Your task to perform on an android device: open app "eBay: The shopping marketplace" (install if not already installed) Image 0: 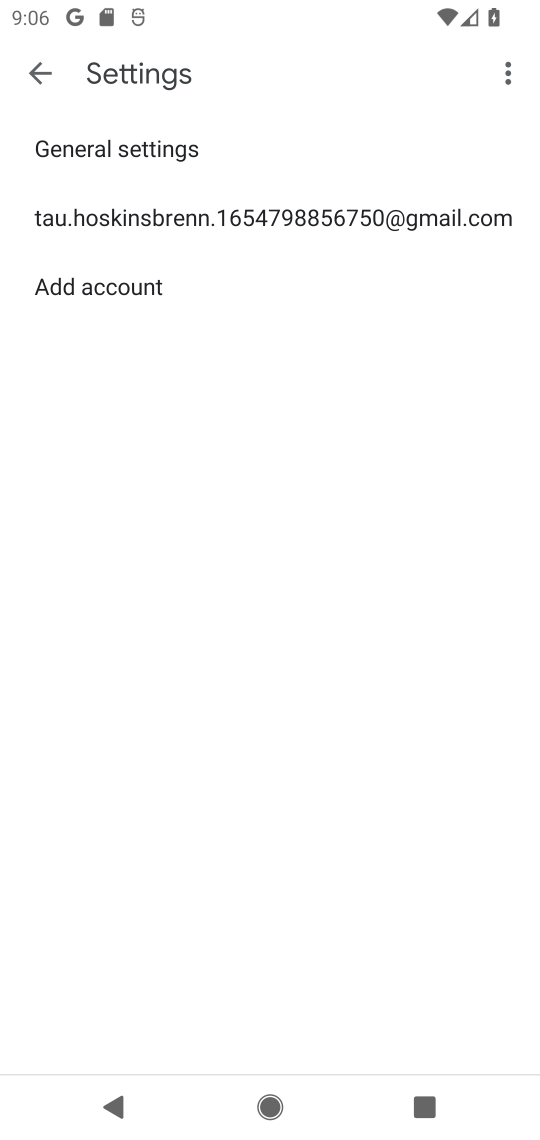
Step 0: press home button
Your task to perform on an android device: open app "eBay: The shopping marketplace" (install if not already installed) Image 1: 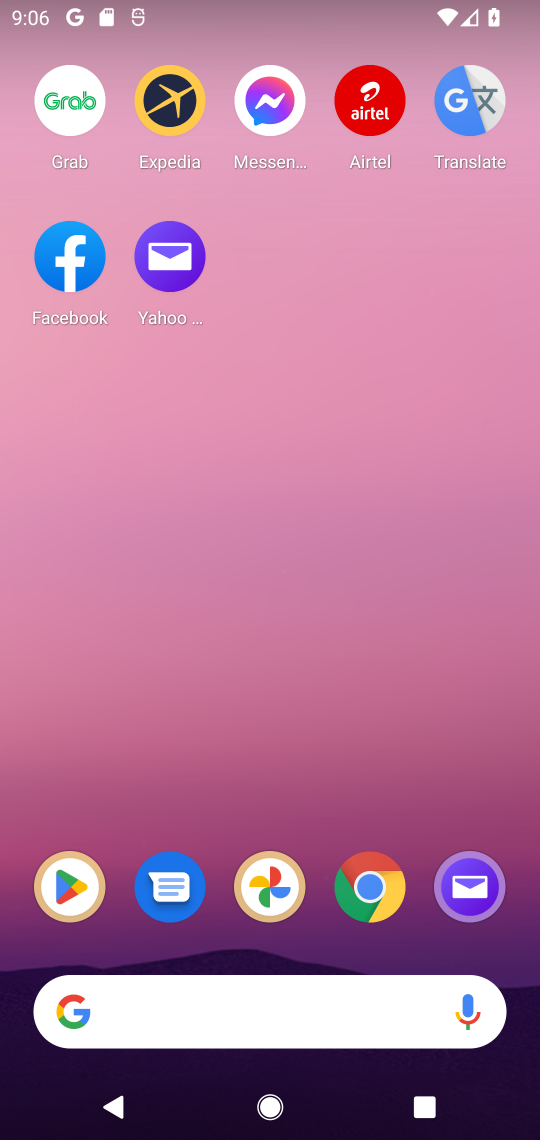
Step 1: click (71, 877)
Your task to perform on an android device: open app "eBay: The shopping marketplace" (install if not already installed) Image 2: 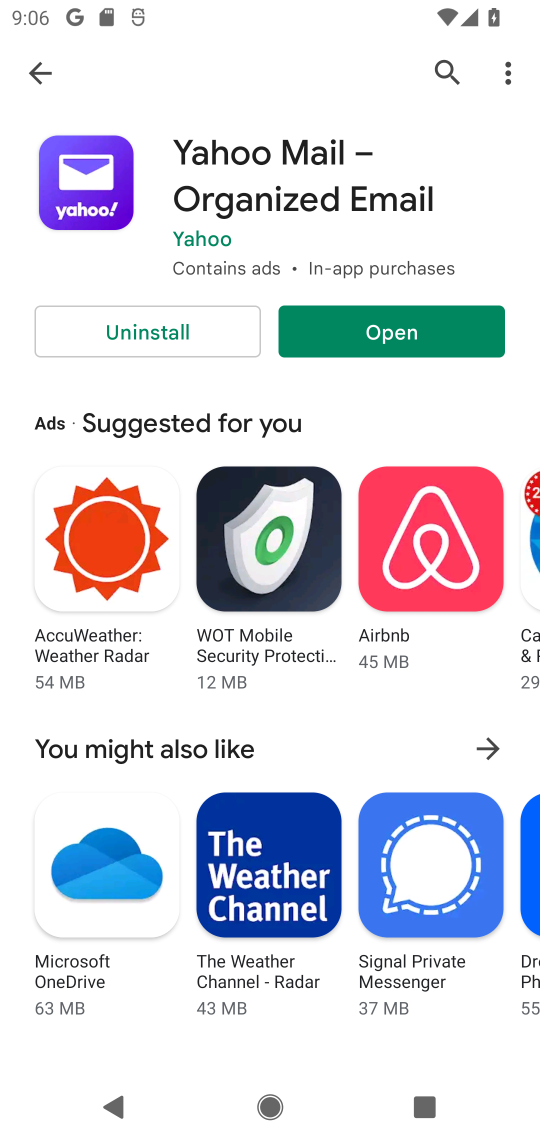
Step 2: click (440, 69)
Your task to perform on an android device: open app "eBay: The shopping marketplace" (install if not already installed) Image 3: 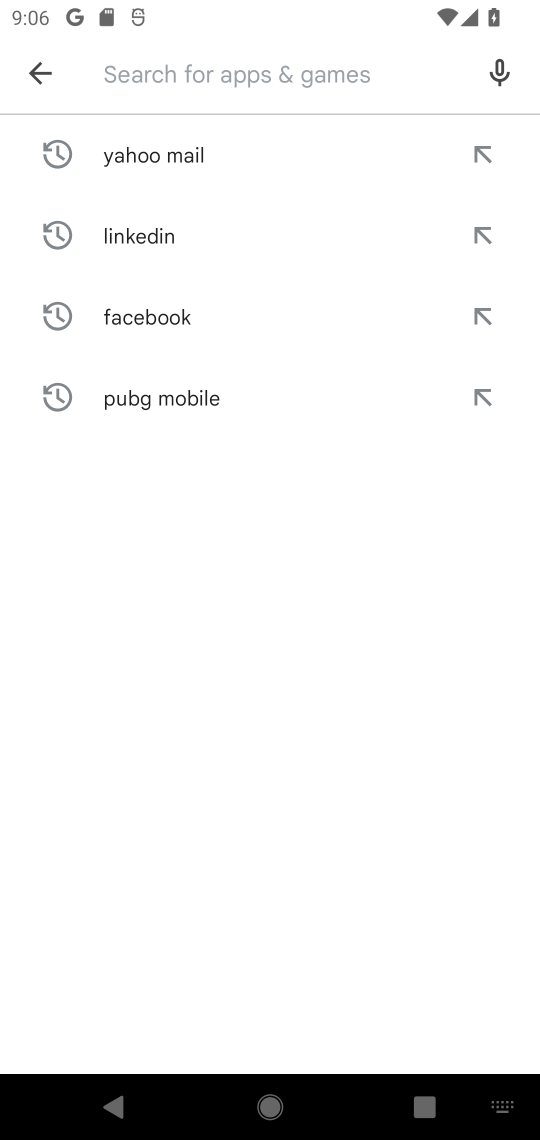
Step 3: type "ebay: the shopping marketplace"
Your task to perform on an android device: open app "eBay: The shopping marketplace" (install if not already installed) Image 4: 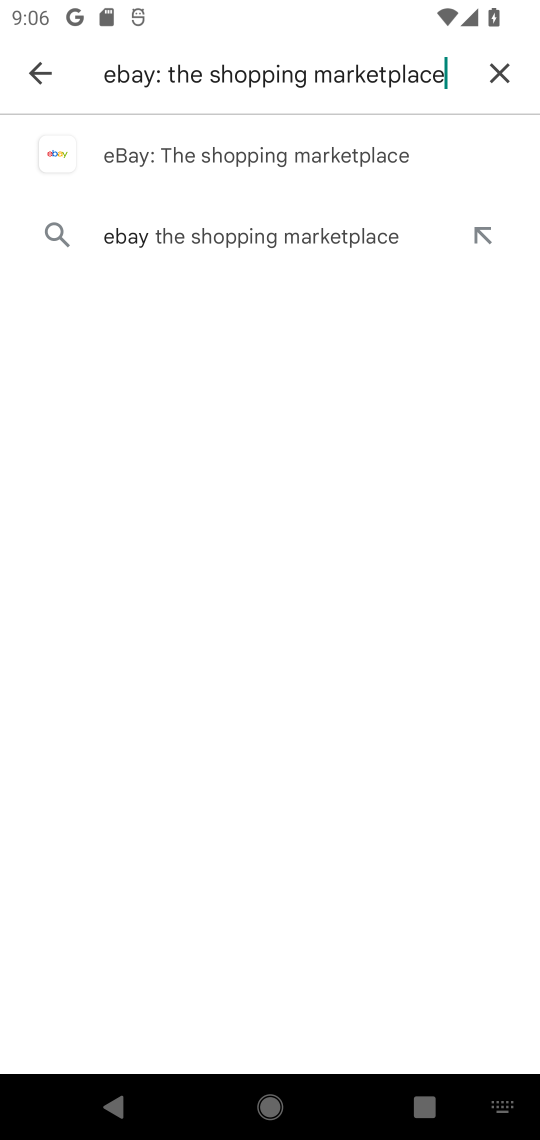
Step 4: click (352, 168)
Your task to perform on an android device: open app "eBay: The shopping marketplace" (install if not already installed) Image 5: 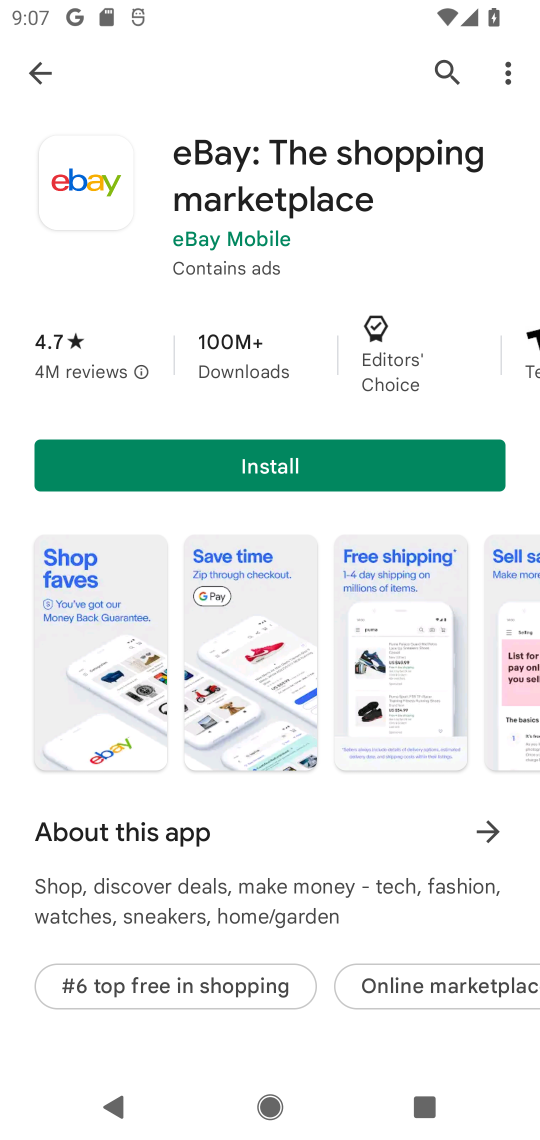
Step 5: click (318, 476)
Your task to perform on an android device: open app "eBay: The shopping marketplace" (install if not already installed) Image 6: 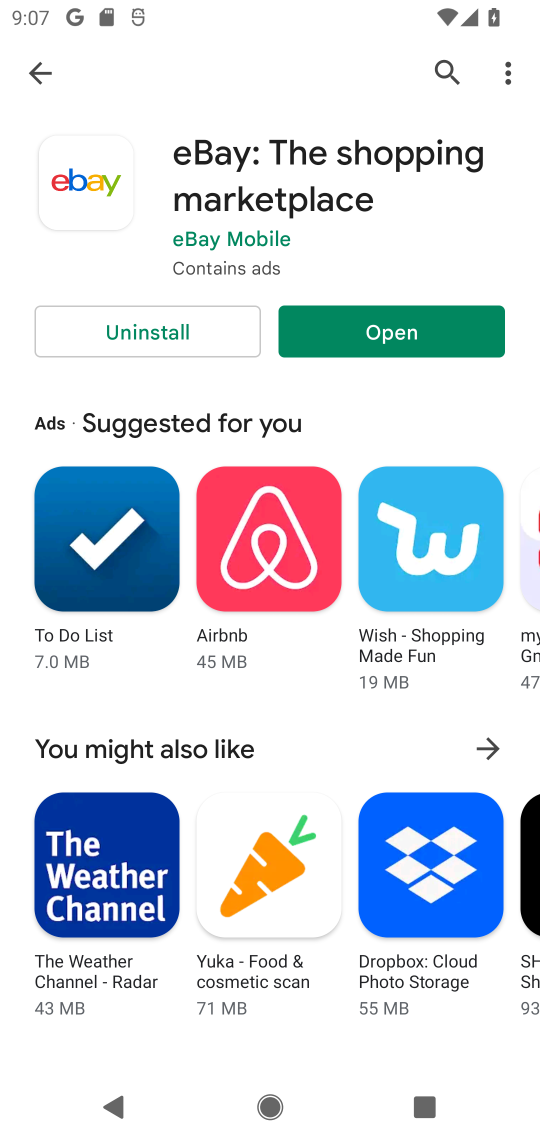
Step 6: click (403, 322)
Your task to perform on an android device: open app "eBay: The shopping marketplace" (install if not already installed) Image 7: 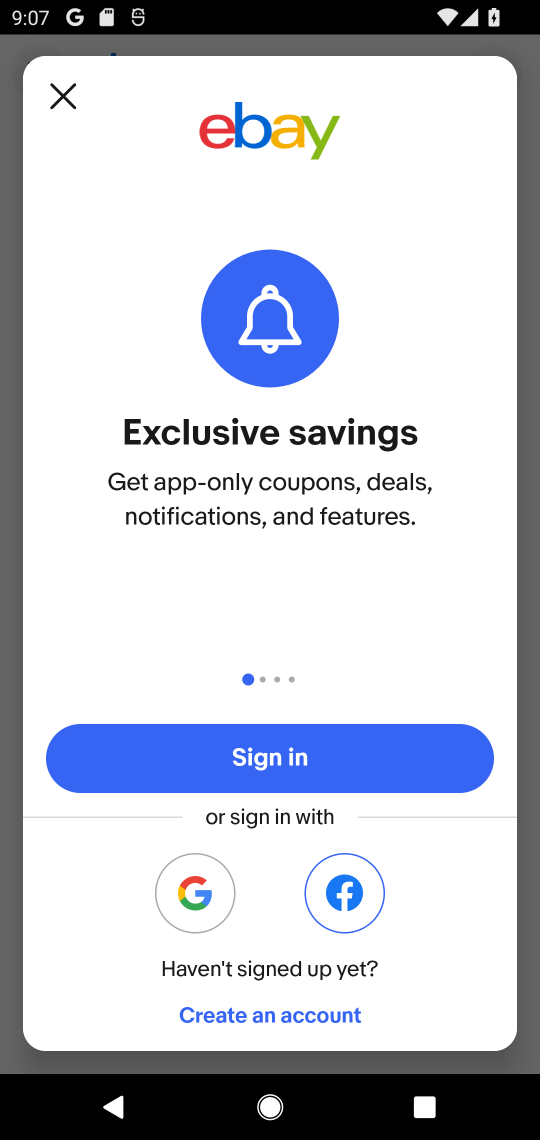
Step 7: task complete